Your task to perform on an android device: find photos in the google photos app Image 0: 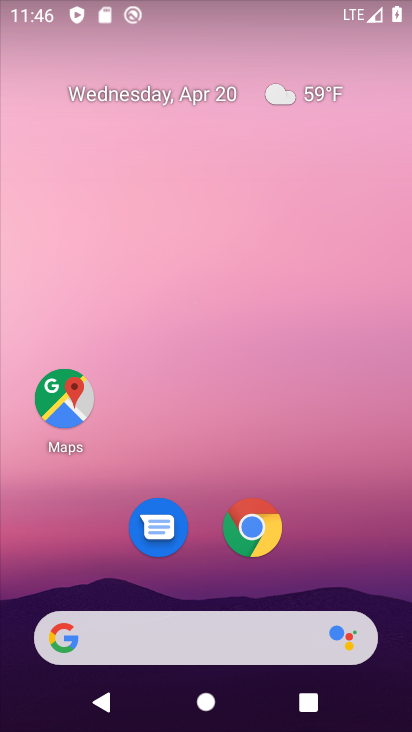
Step 0: drag from (357, 495) to (350, 245)
Your task to perform on an android device: find photos in the google photos app Image 1: 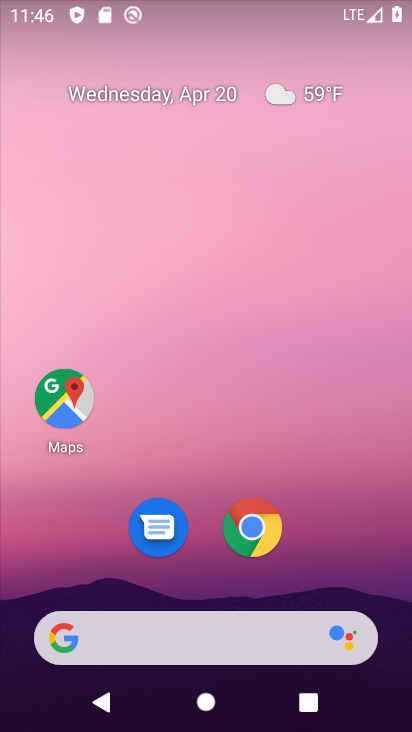
Step 1: drag from (364, 563) to (368, 236)
Your task to perform on an android device: find photos in the google photos app Image 2: 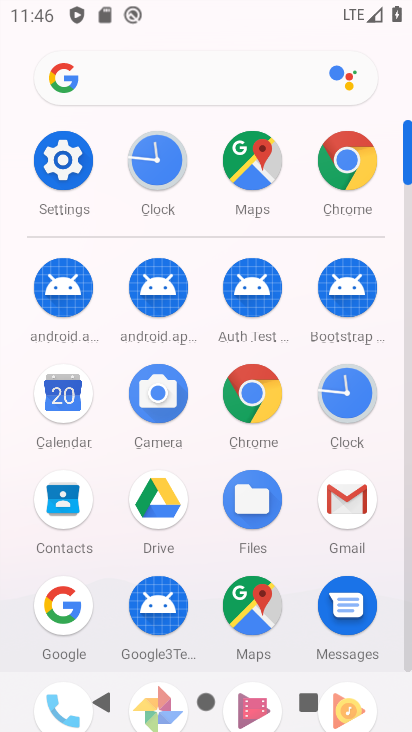
Step 2: drag from (206, 584) to (199, 277)
Your task to perform on an android device: find photos in the google photos app Image 3: 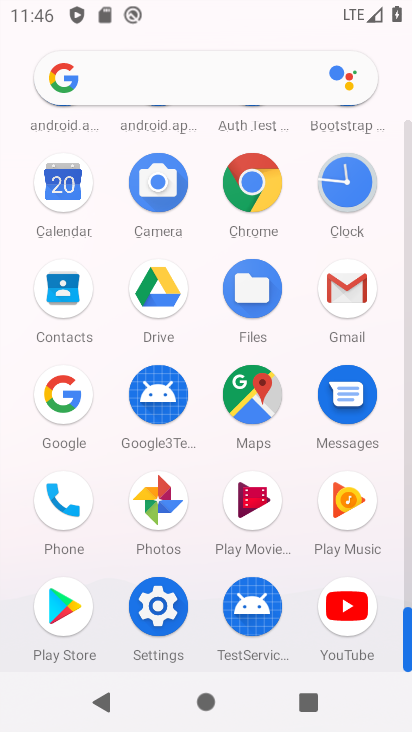
Step 3: click (170, 530)
Your task to perform on an android device: find photos in the google photos app Image 4: 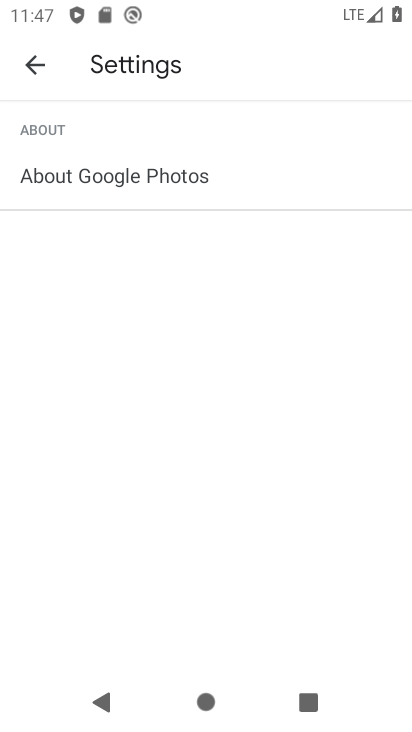
Step 4: click (32, 58)
Your task to perform on an android device: find photos in the google photos app Image 5: 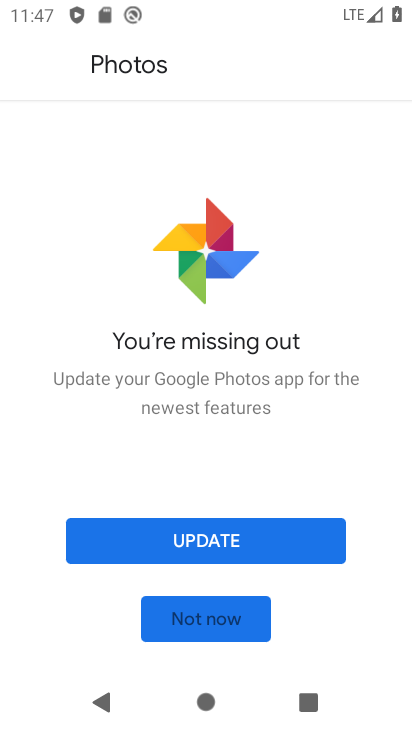
Step 5: click (228, 628)
Your task to perform on an android device: find photos in the google photos app Image 6: 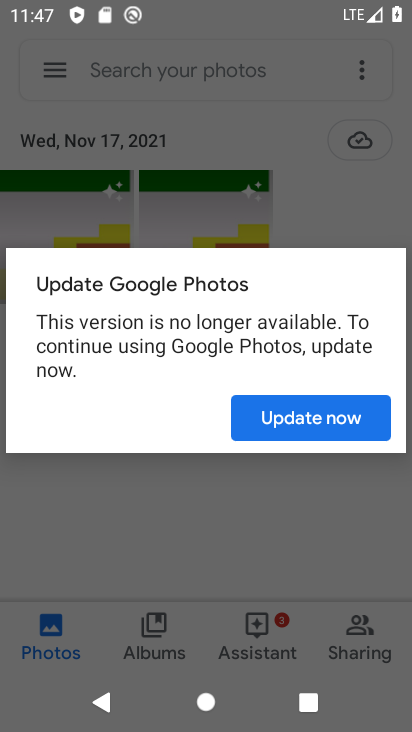
Step 6: click (291, 426)
Your task to perform on an android device: find photos in the google photos app Image 7: 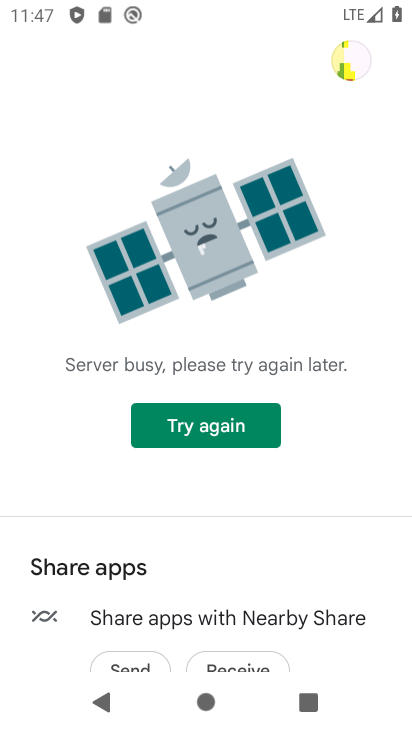
Step 7: task complete